Your task to perform on an android device: delete browsing data in the chrome app Image 0: 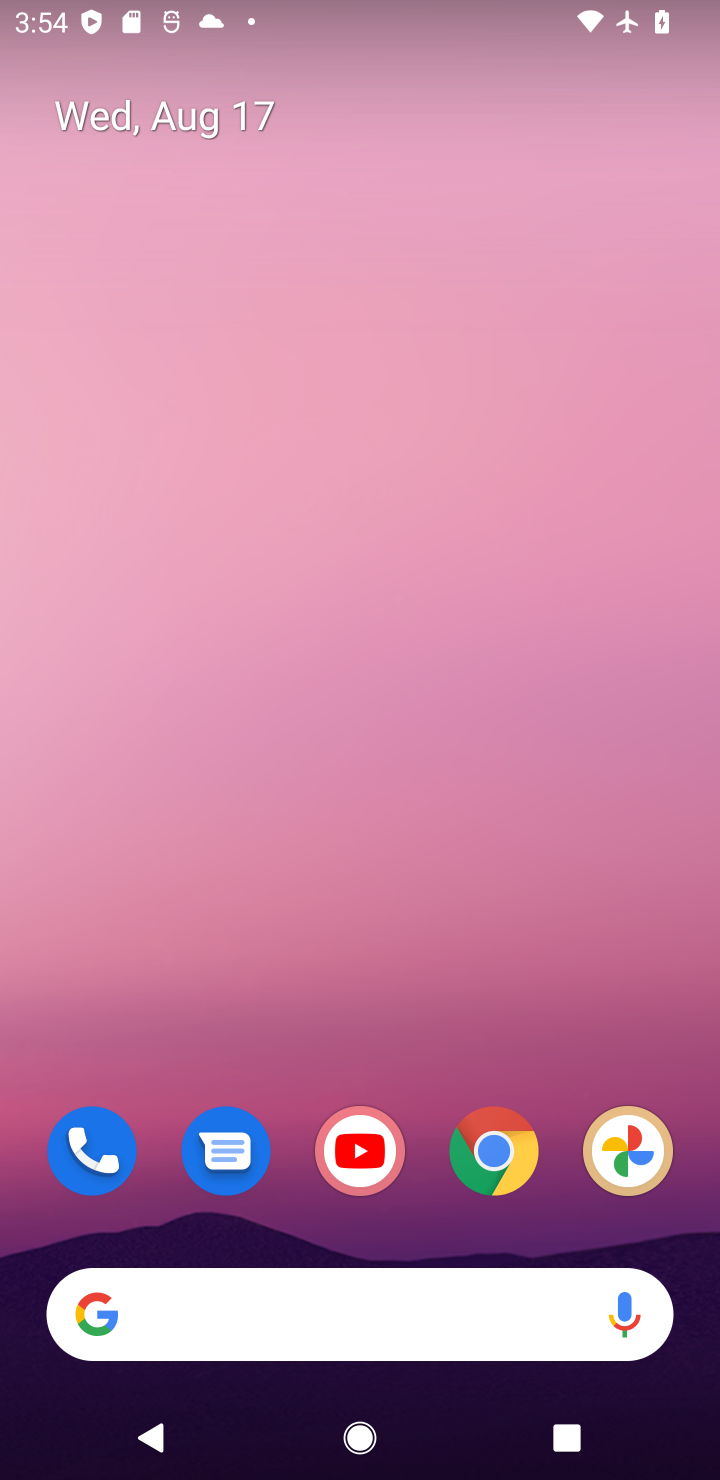
Step 0: drag from (339, 1197) to (310, 415)
Your task to perform on an android device: delete browsing data in the chrome app Image 1: 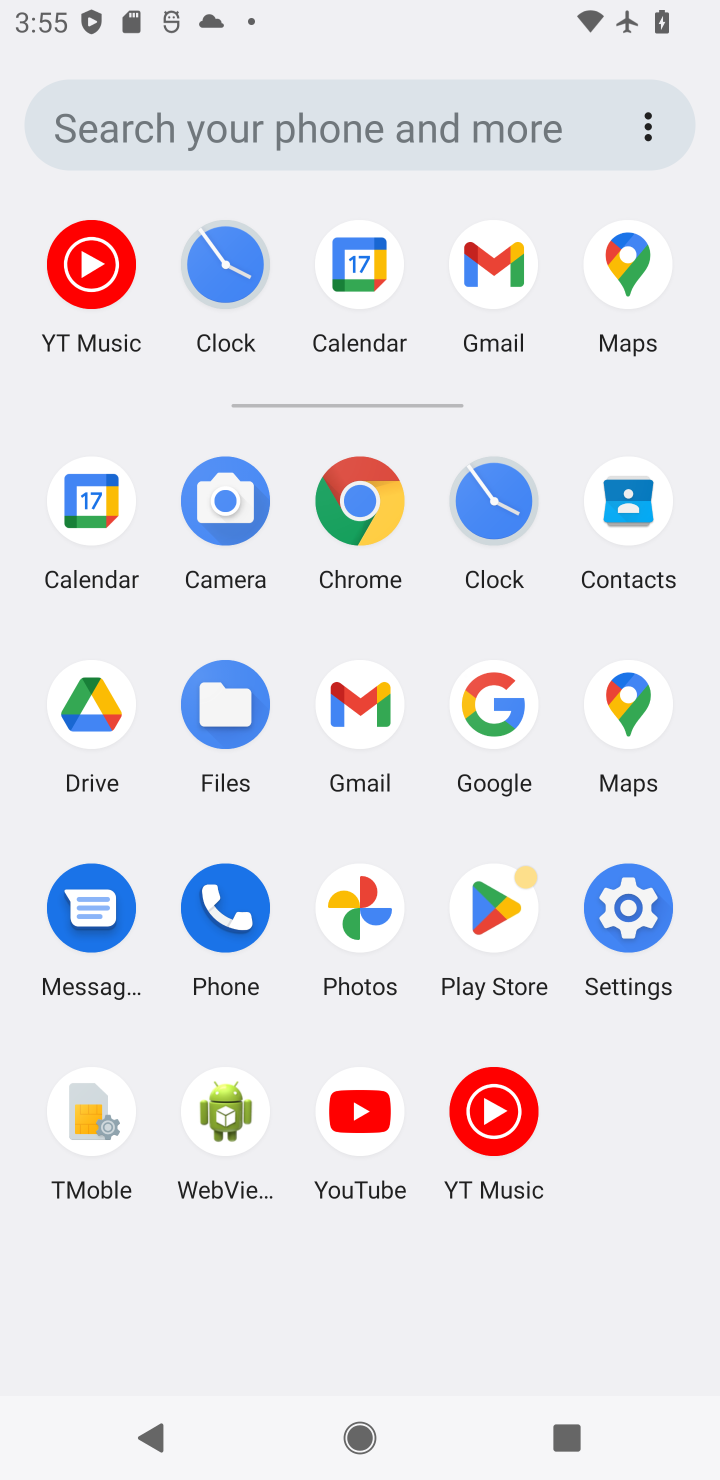
Step 1: click (372, 475)
Your task to perform on an android device: delete browsing data in the chrome app Image 2: 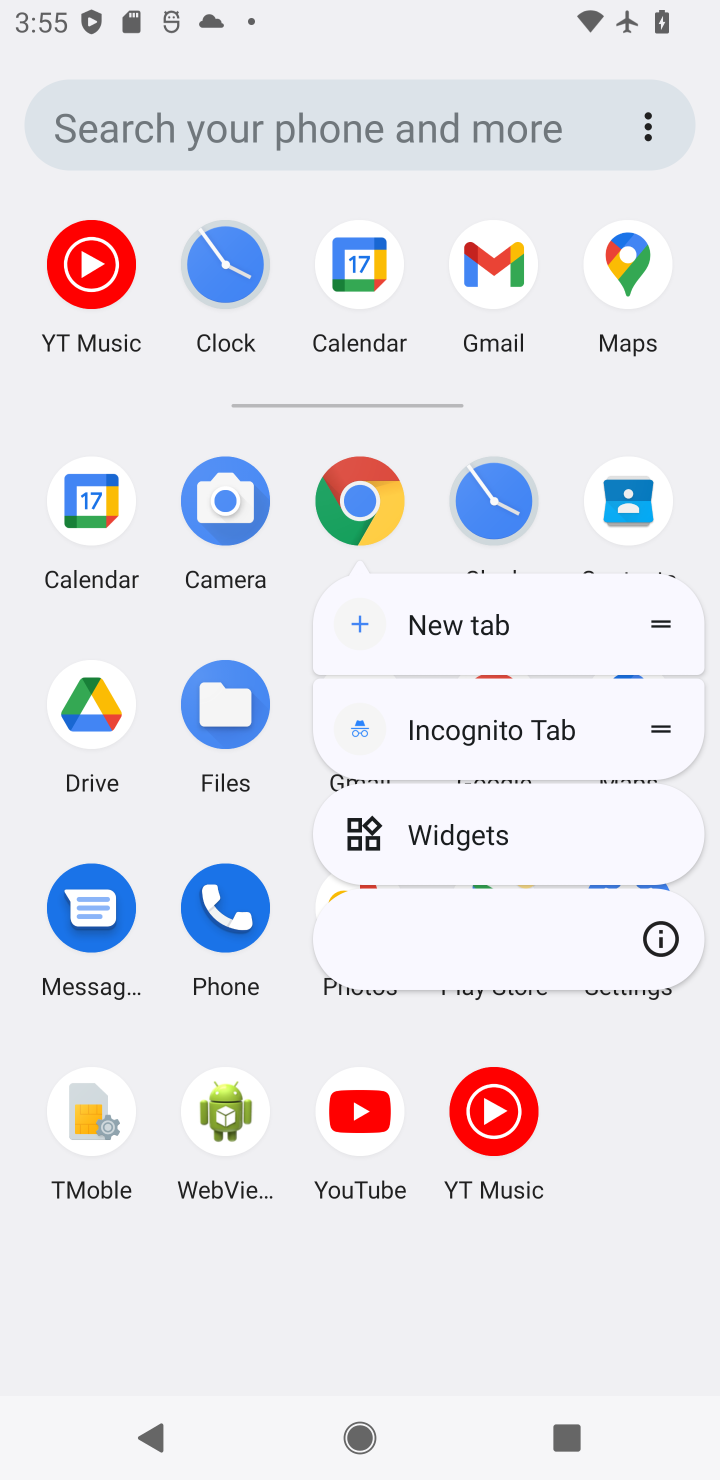
Step 2: click (372, 483)
Your task to perform on an android device: delete browsing data in the chrome app Image 3: 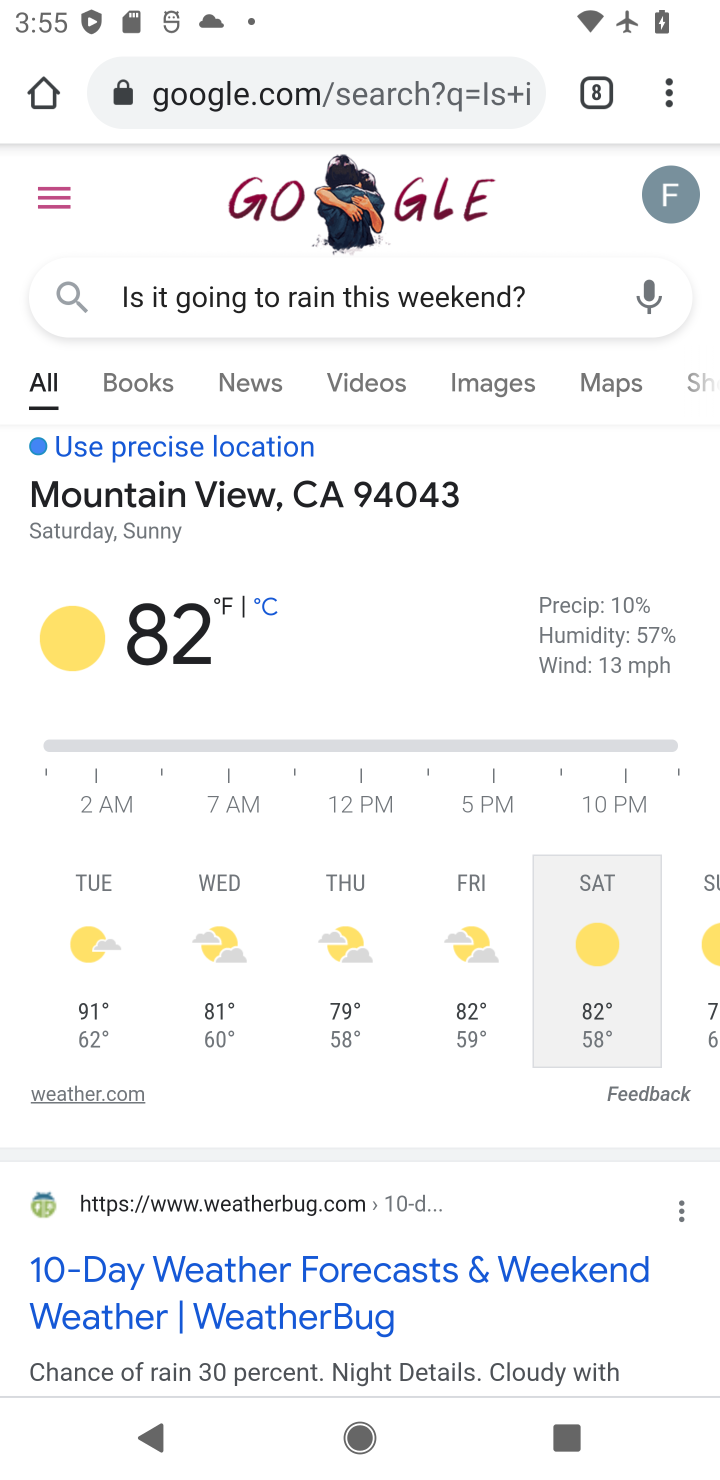
Step 3: click (663, 84)
Your task to perform on an android device: delete browsing data in the chrome app Image 4: 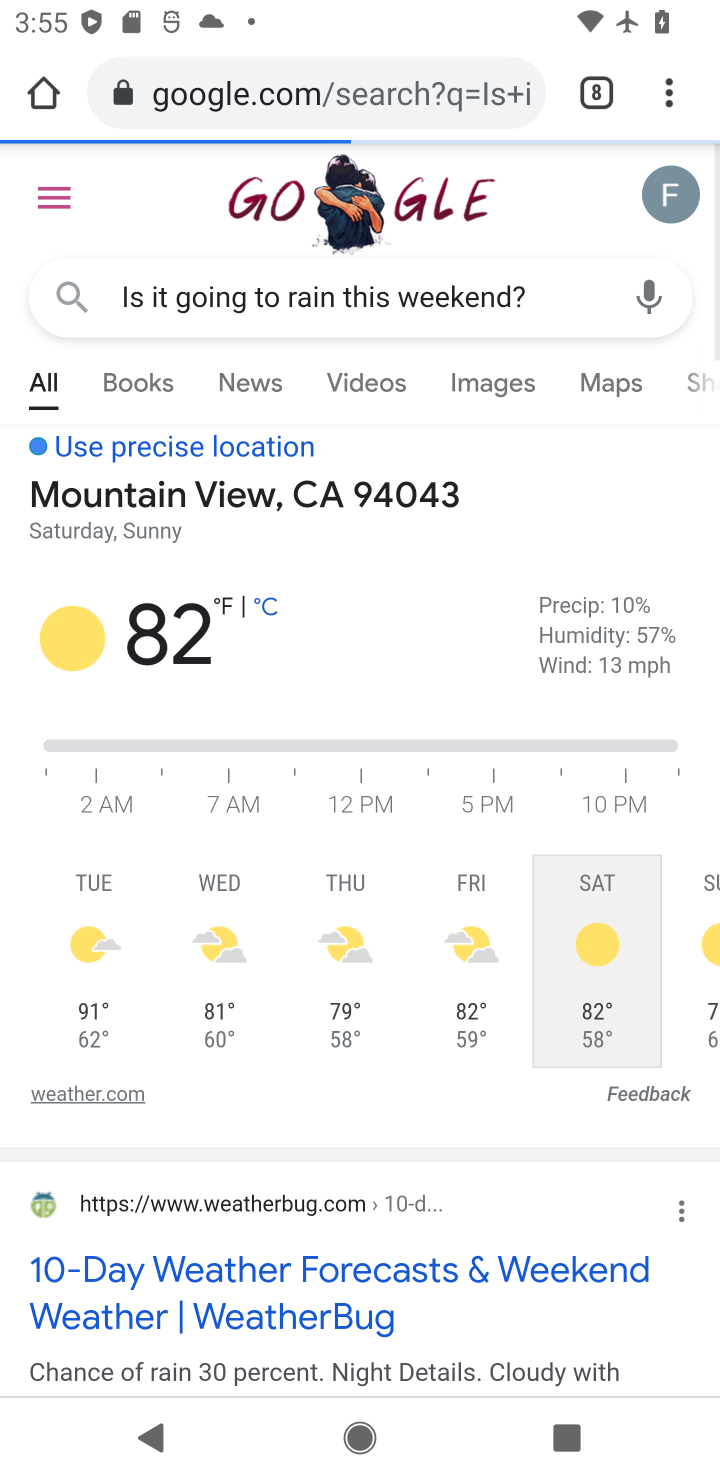
Step 4: click (667, 92)
Your task to perform on an android device: delete browsing data in the chrome app Image 5: 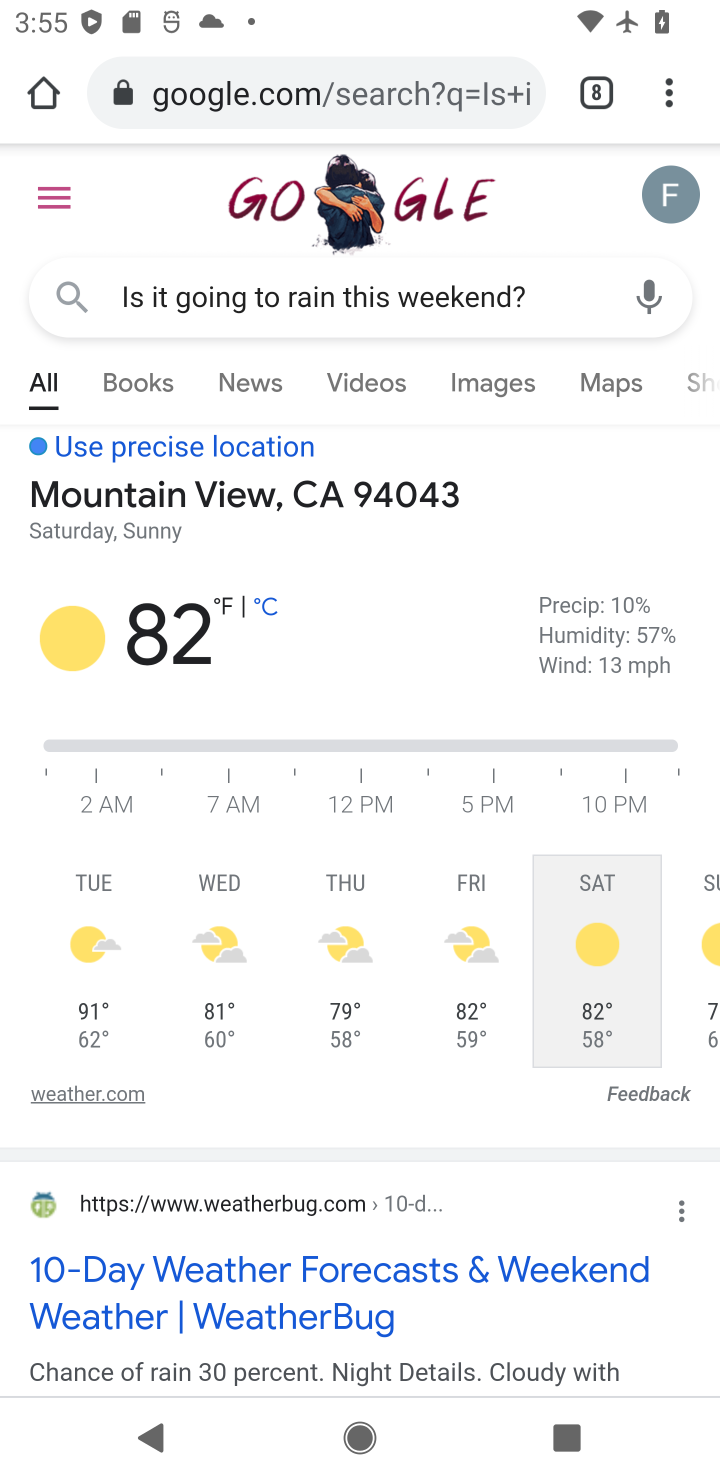
Step 5: click (671, 103)
Your task to perform on an android device: delete browsing data in the chrome app Image 6: 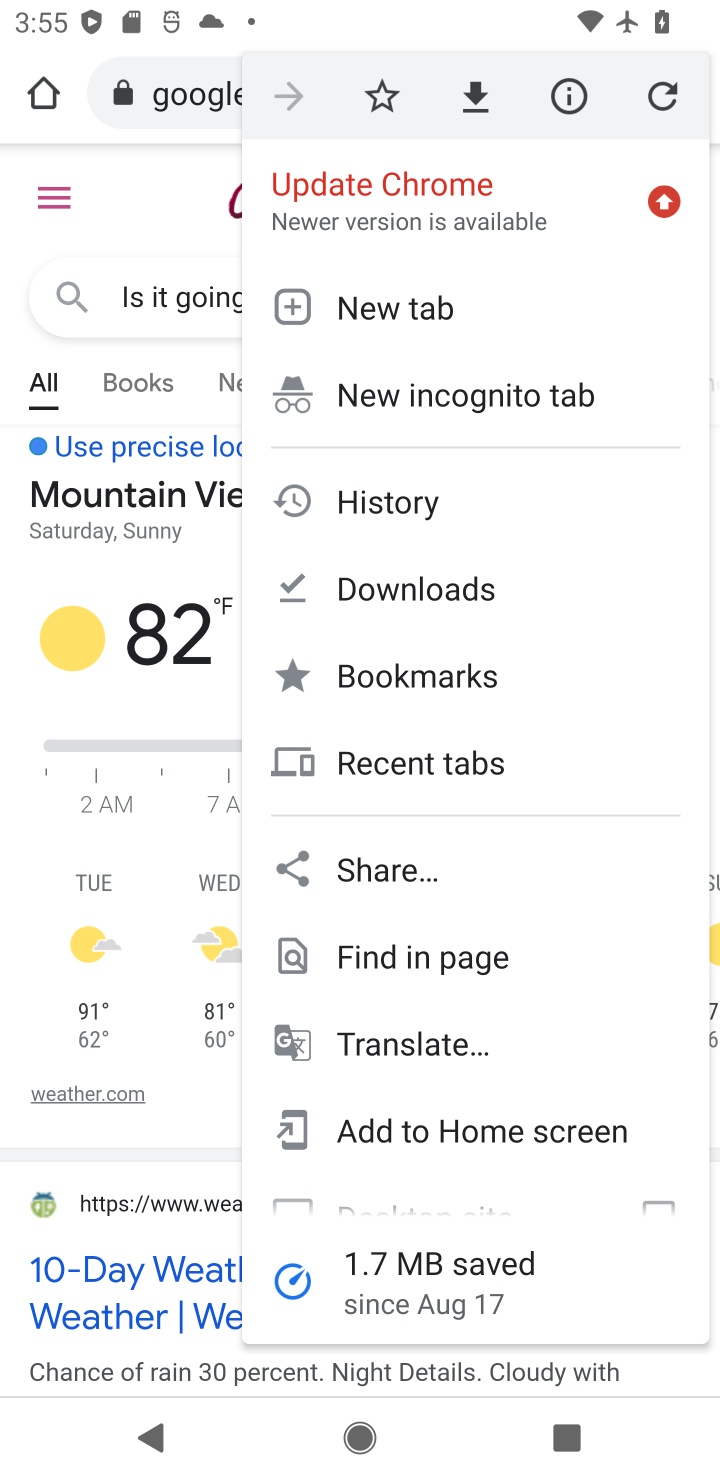
Step 6: drag from (473, 1054) to (469, 329)
Your task to perform on an android device: delete browsing data in the chrome app Image 7: 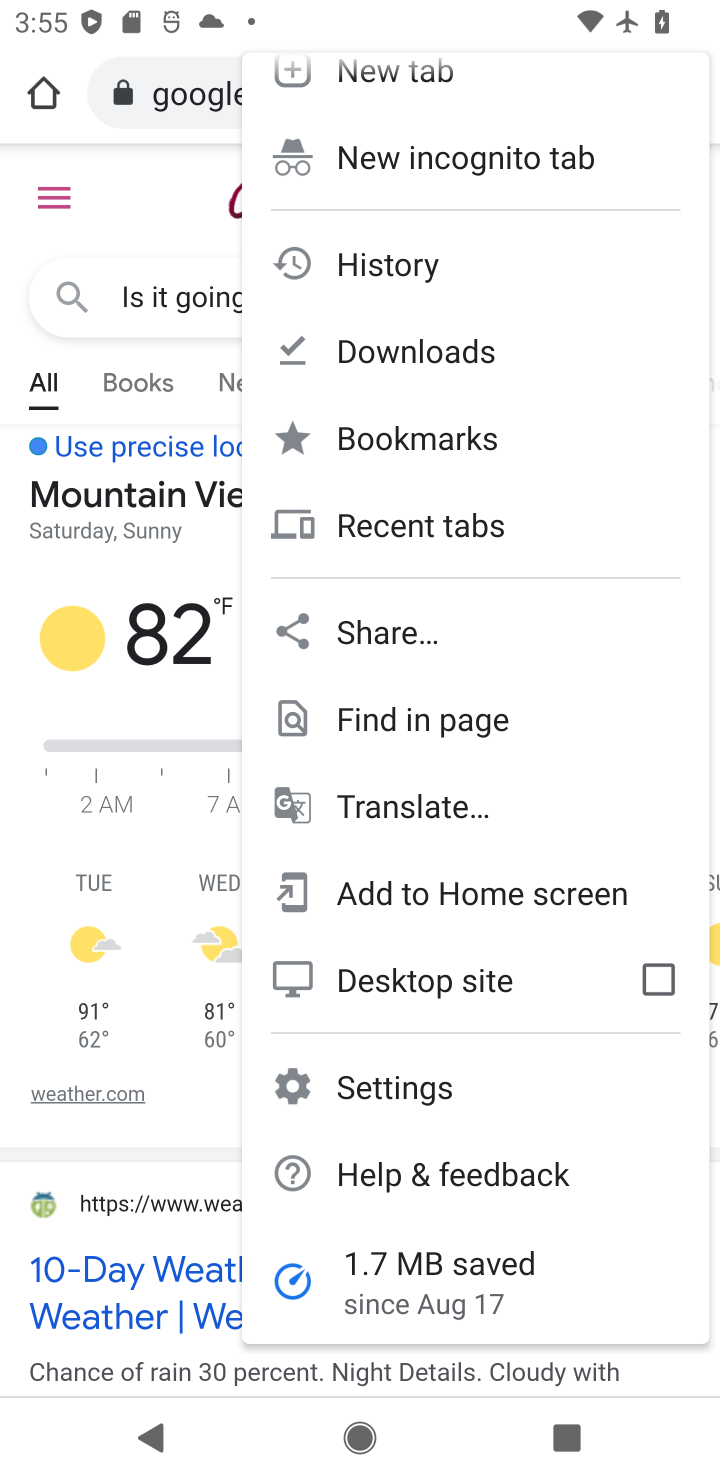
Step 7: click (380, 1084)
Your task to perform on an android device: delete browsing data in the chrome app Image 8: 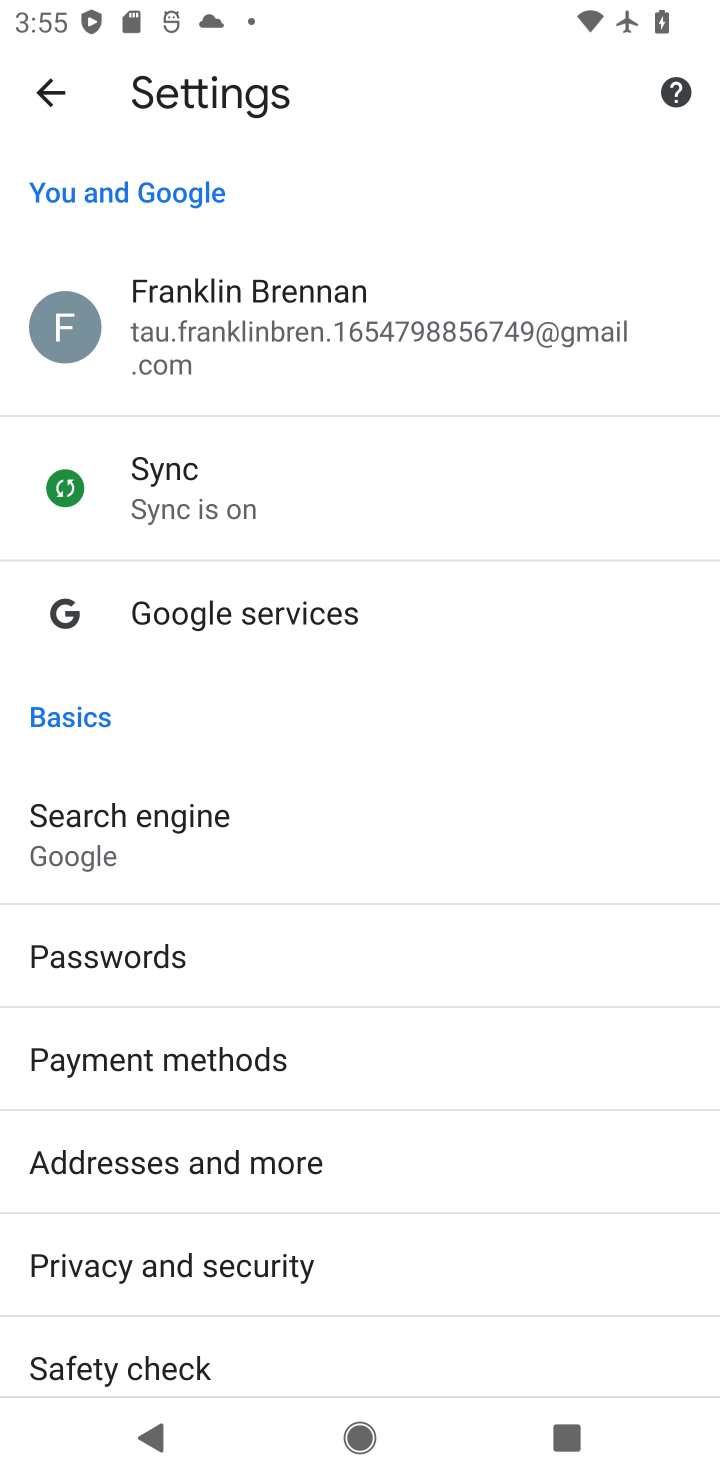
Step 8: drag from (325, 1200) to (378, 370)
Your task to perform on an android device: delete browsing data in the chrome app Image 9: 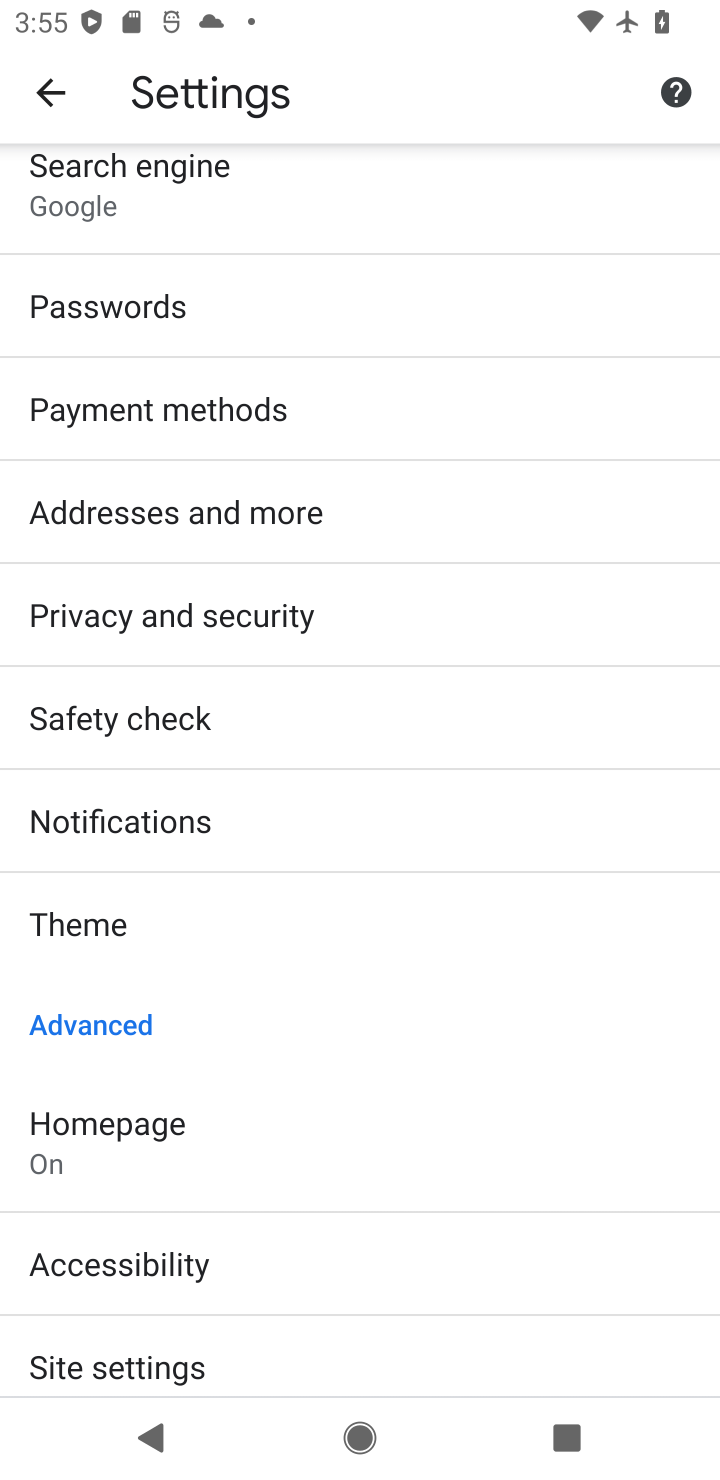
Step 9: drag from (254, 1121) to (477, 328)
Your task to perform on an android device: delete browsing data in the chrome app Image 10: 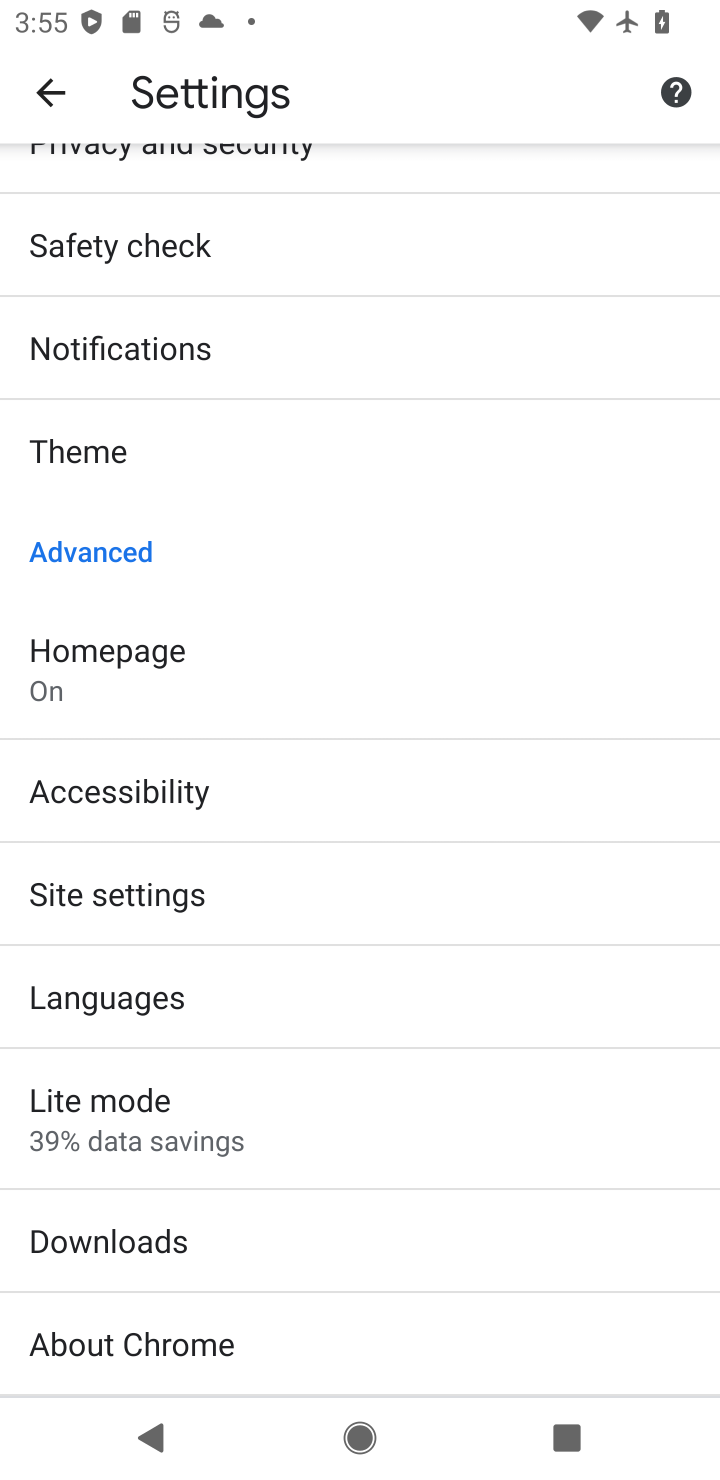
Step 10: drag from (340, 1145) to (519, 1233)
Your task to perform on an android device: delete browsing data in the chrome app Image 11: 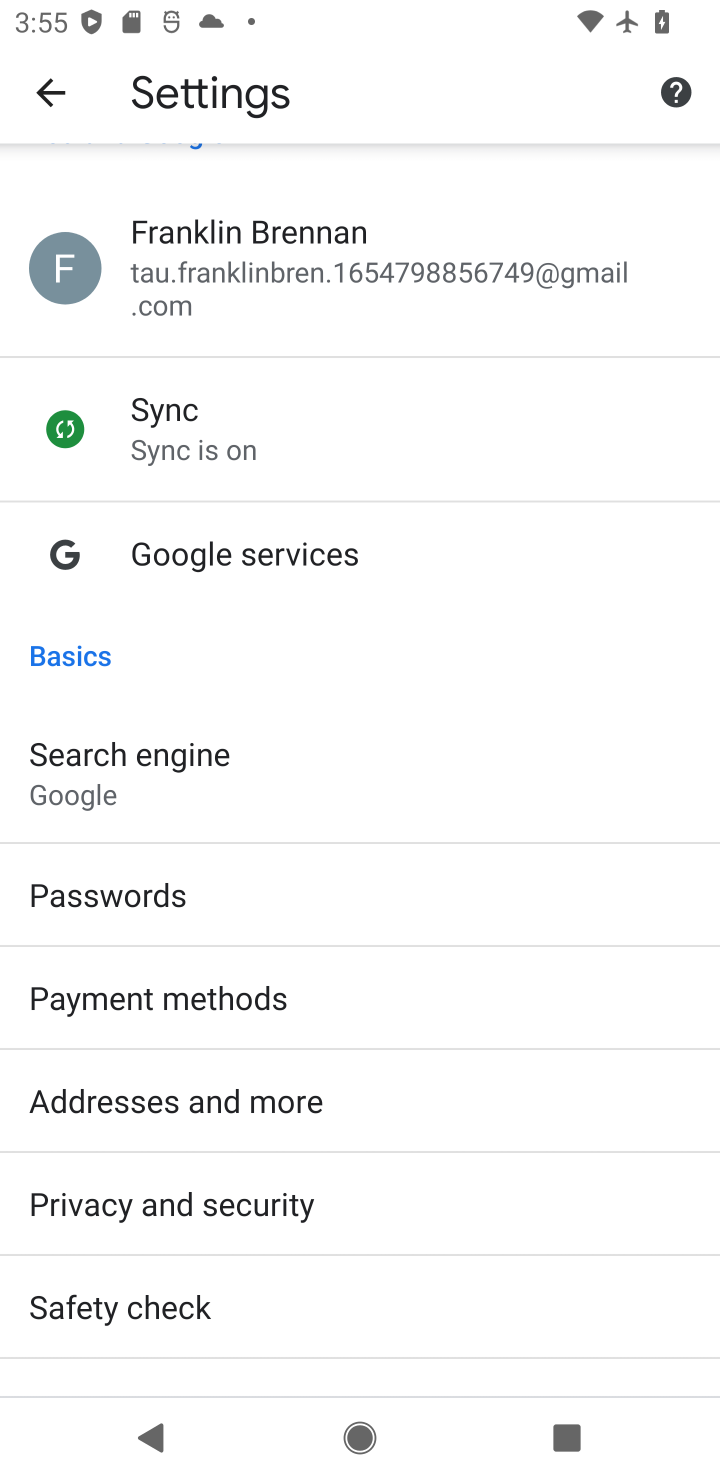
Step 11: click (324, 1179)
Your task to perform on an android device: delete browsing data in the chrome app Image 12: 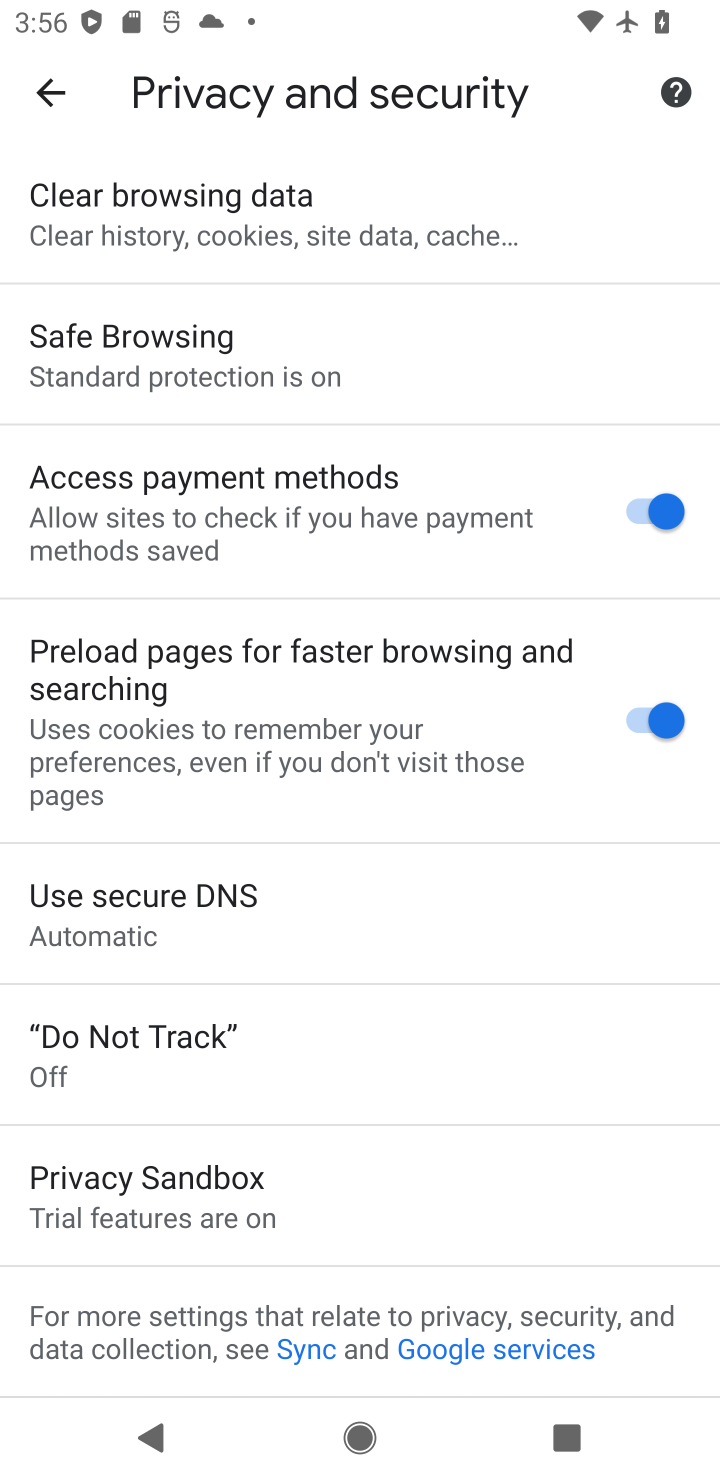
Step 12: click (224, 208)
Your task to perform on an android device: delete browsing data in the chrome app Image 13: 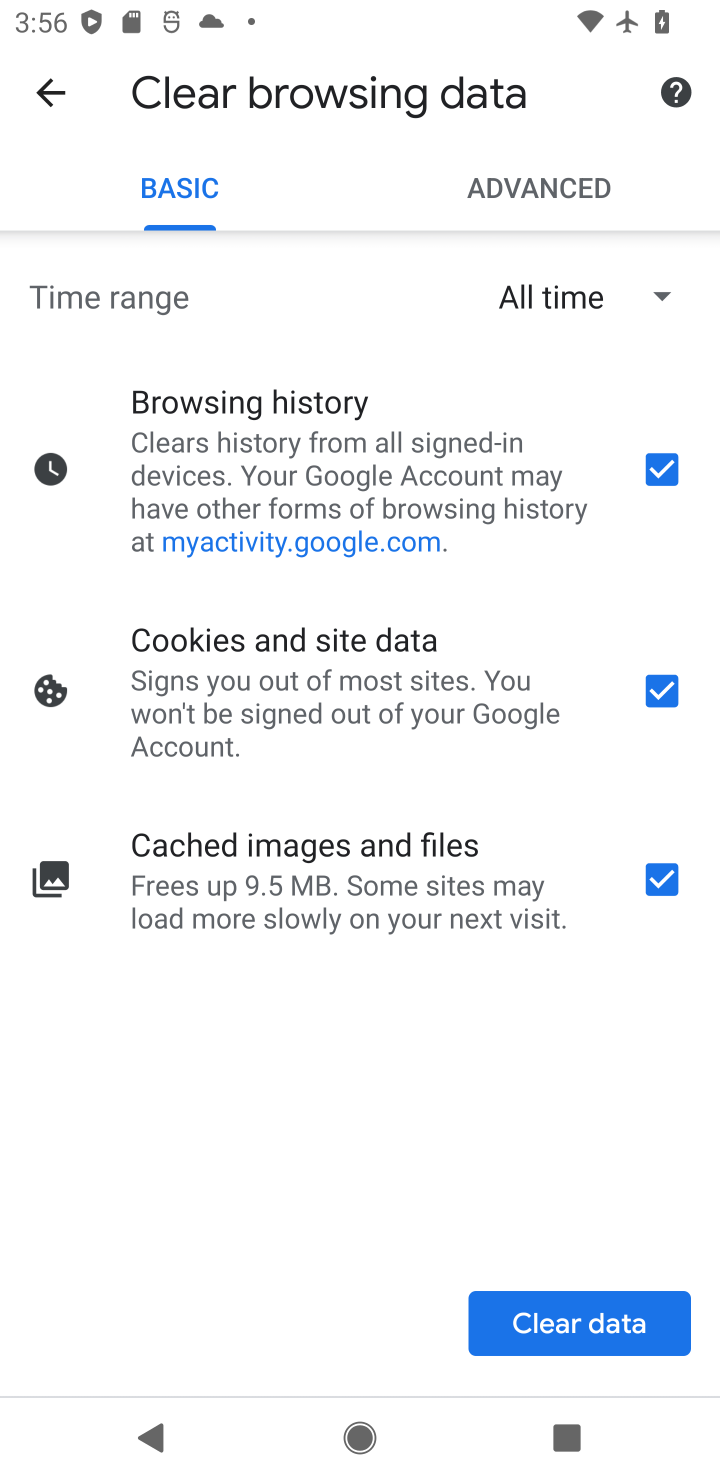
Step 13: click (534, 1311)
Your task to perform on an android device: delete browsing data in the chrome app Image 14: 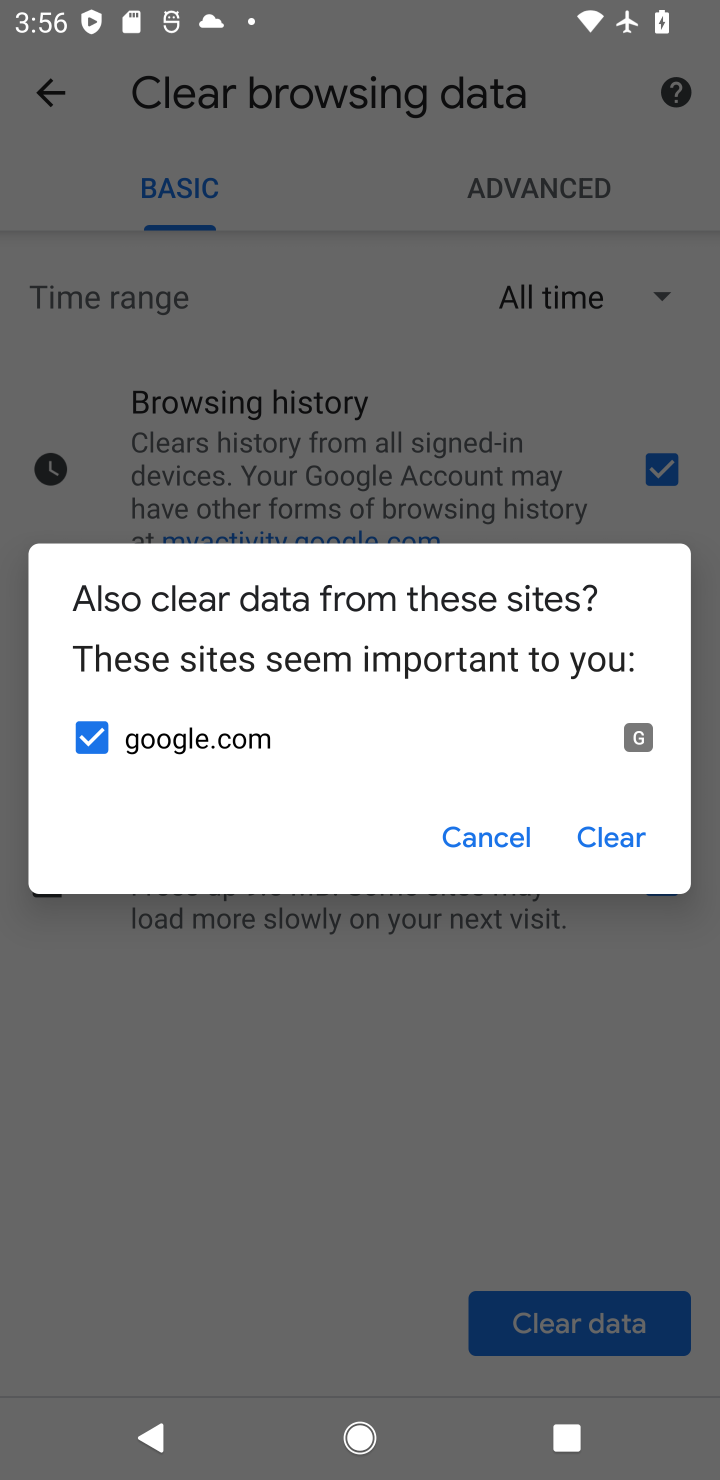
Step 14: click (601, 823)
Your task to perform on an android device: delete browsing data in the chrome app Image 15: 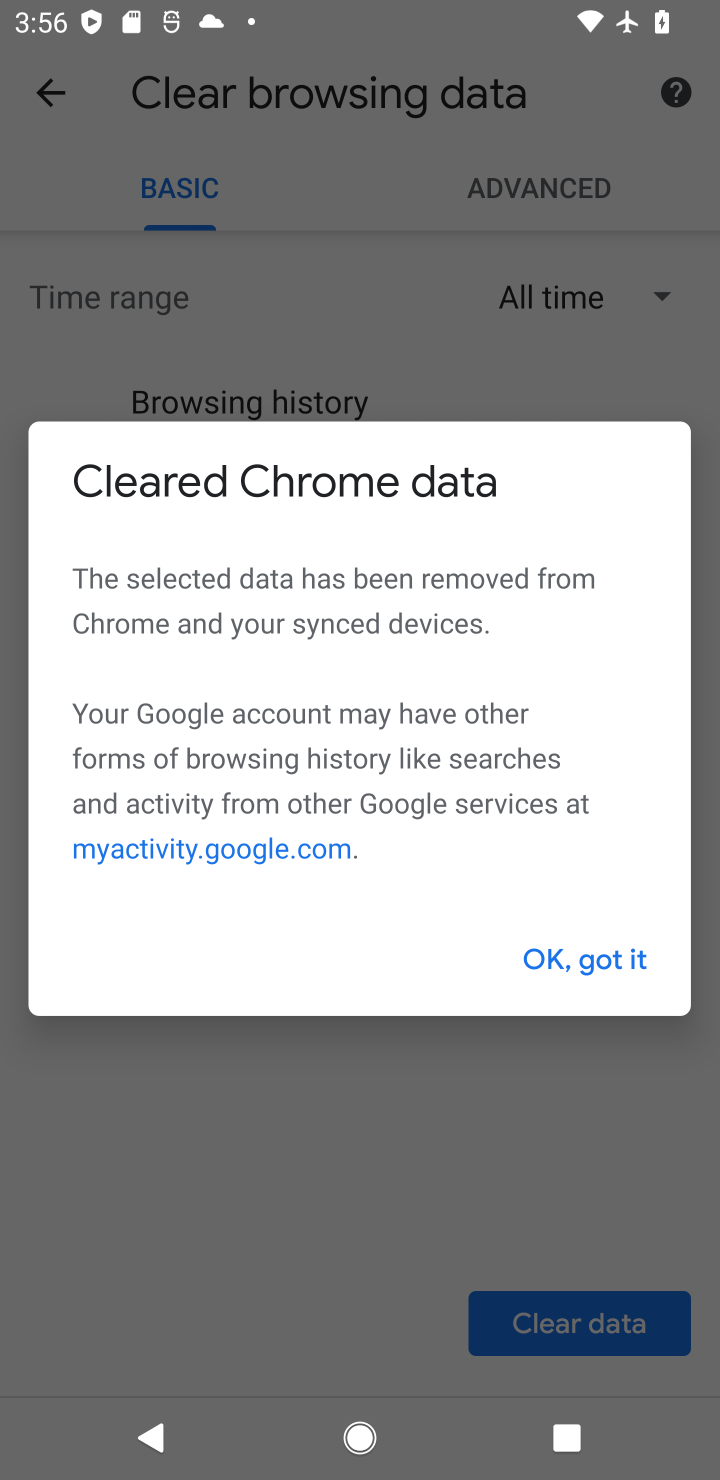
Step 15: task complete